Your task to perform on an android device: Search for pizza restaurants on Maps Image 0: 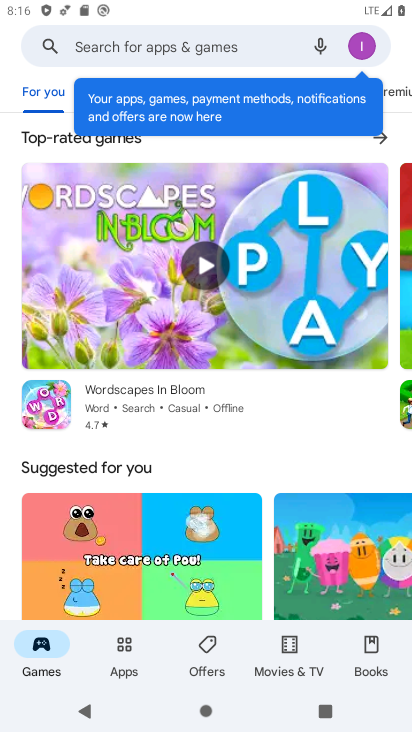
Step 0: press home button
Your task to perform on an android device: Search for pizza restaurants on Maps Image 1: 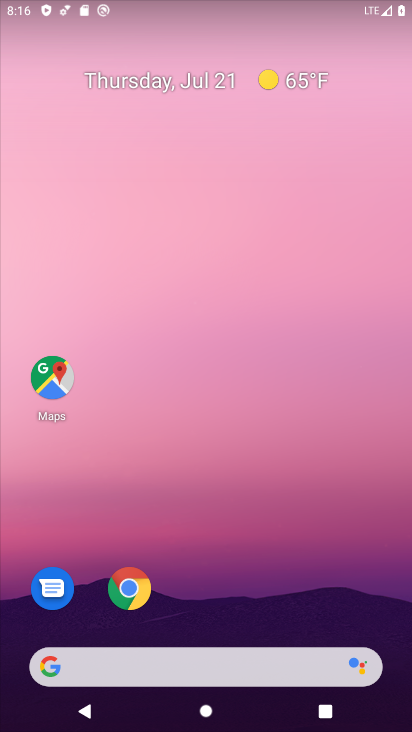
Step 1: click (44, 355)
Your task to perform on an android device: Search for pizza restaurants on Maps Image 2: 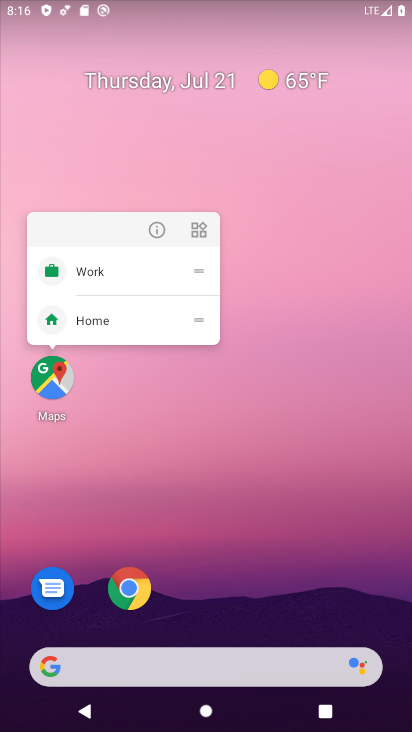
Step 2: click (45, 369)
Your task to perform on an android device: Search for pizza restaurants on Maps Image 3: 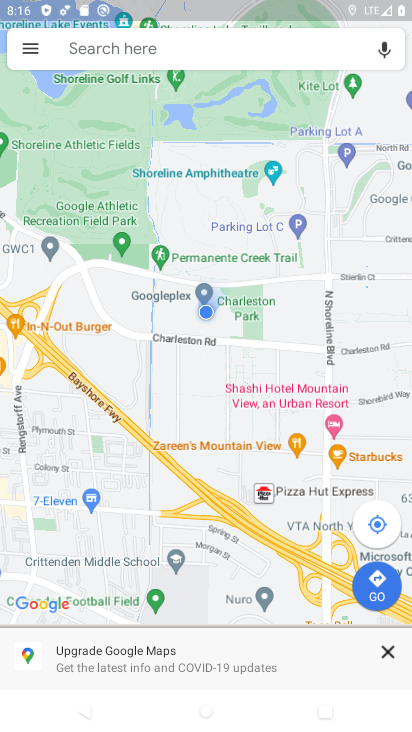
Step 3: click (207, 71)
Your task to perform on an android device: Search for pizza restaurants on Maps Image 4: 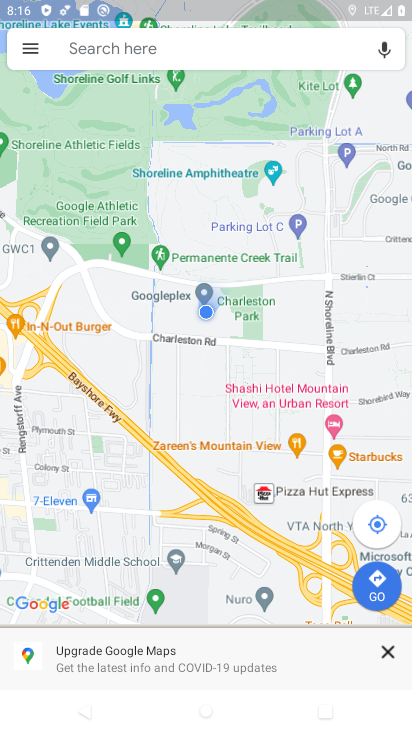
Step 4: click (204, 44)
Your task to perform on an android device: Search for pizza restaurants on Maps Image 5: 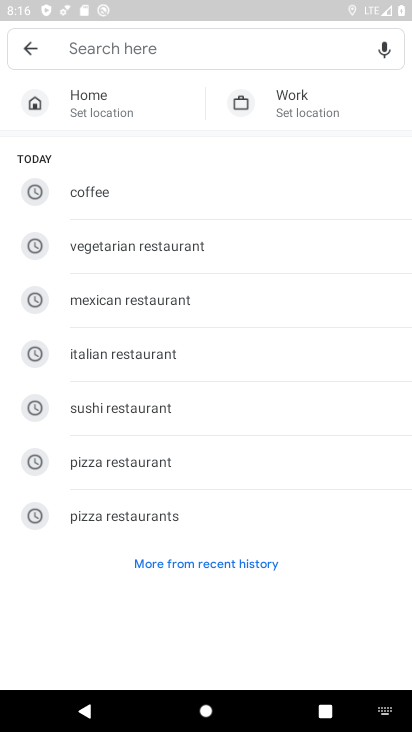
Step 5: click (106, 452)
Your task to perform on an android device: Search for pizza restaurants on Maps Image 6: 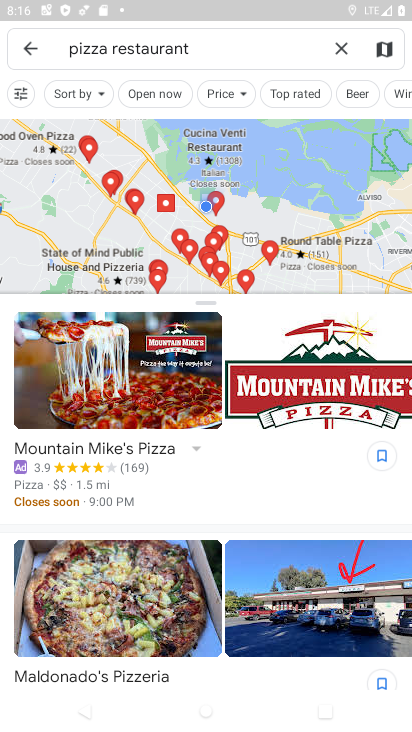
Step 6: task complete